Your task to perform on an android device: install app "Speedtest by Ookla" Image 0: 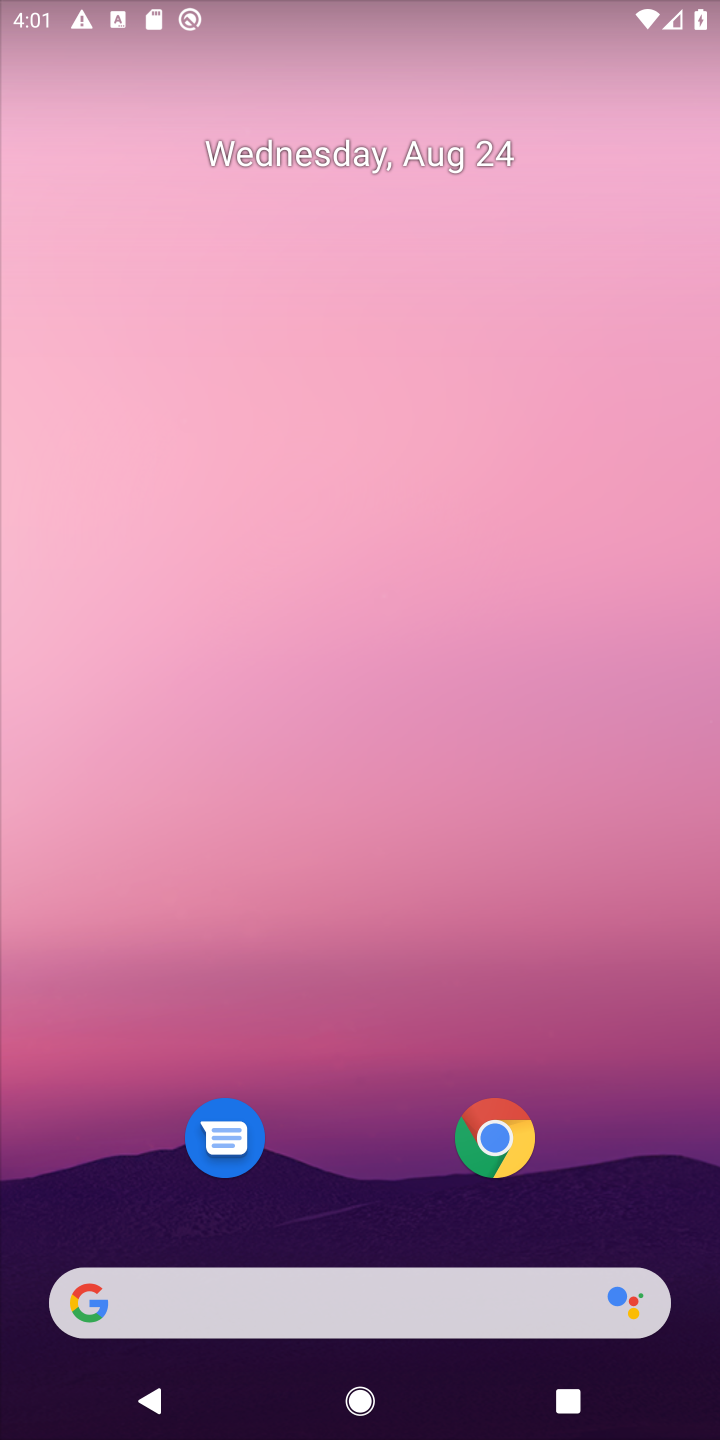
Step 0: drag from (381, 1259) to (375, 169)
Your task to perform on an android device: install app "Speedtest by Ookla" Image 1: 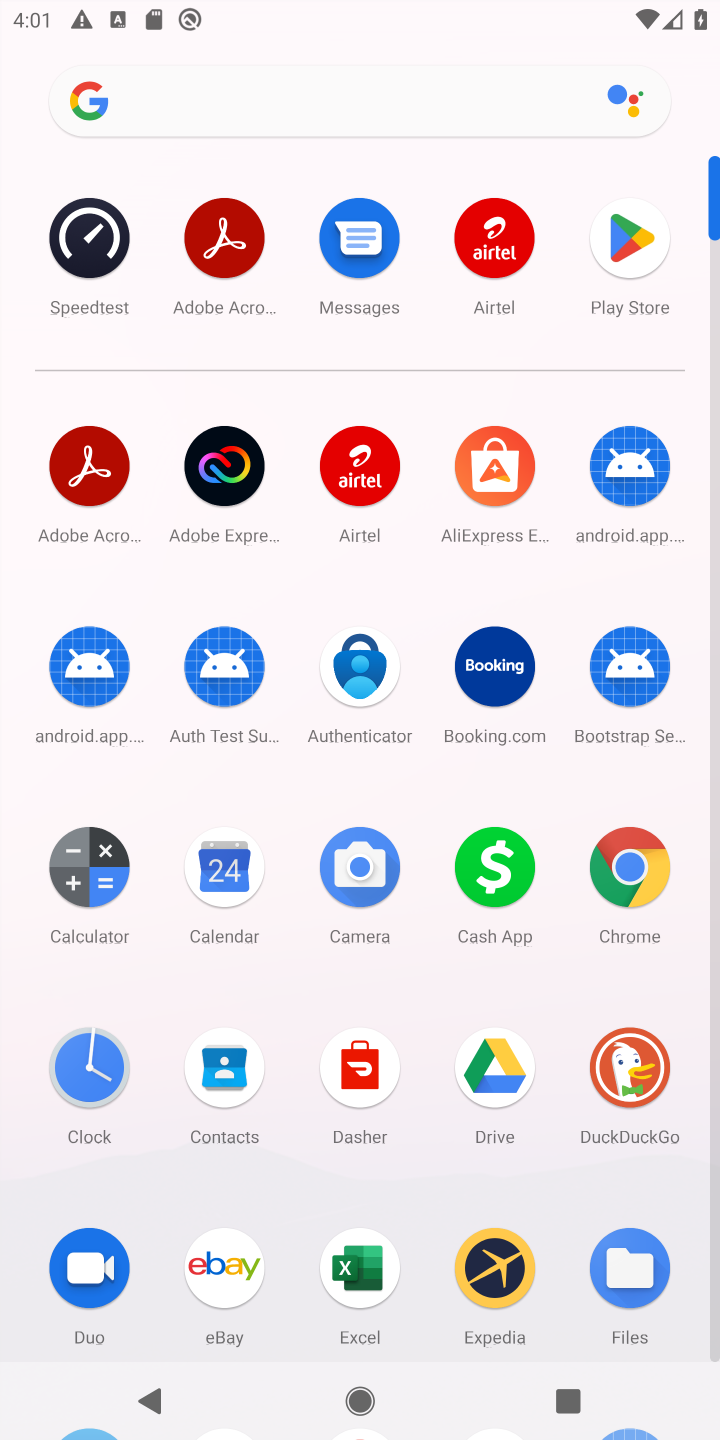
Step 1: click (625, 241)
Your task to perform on an android device: install app "Speedtest by Ookla" Image 2: 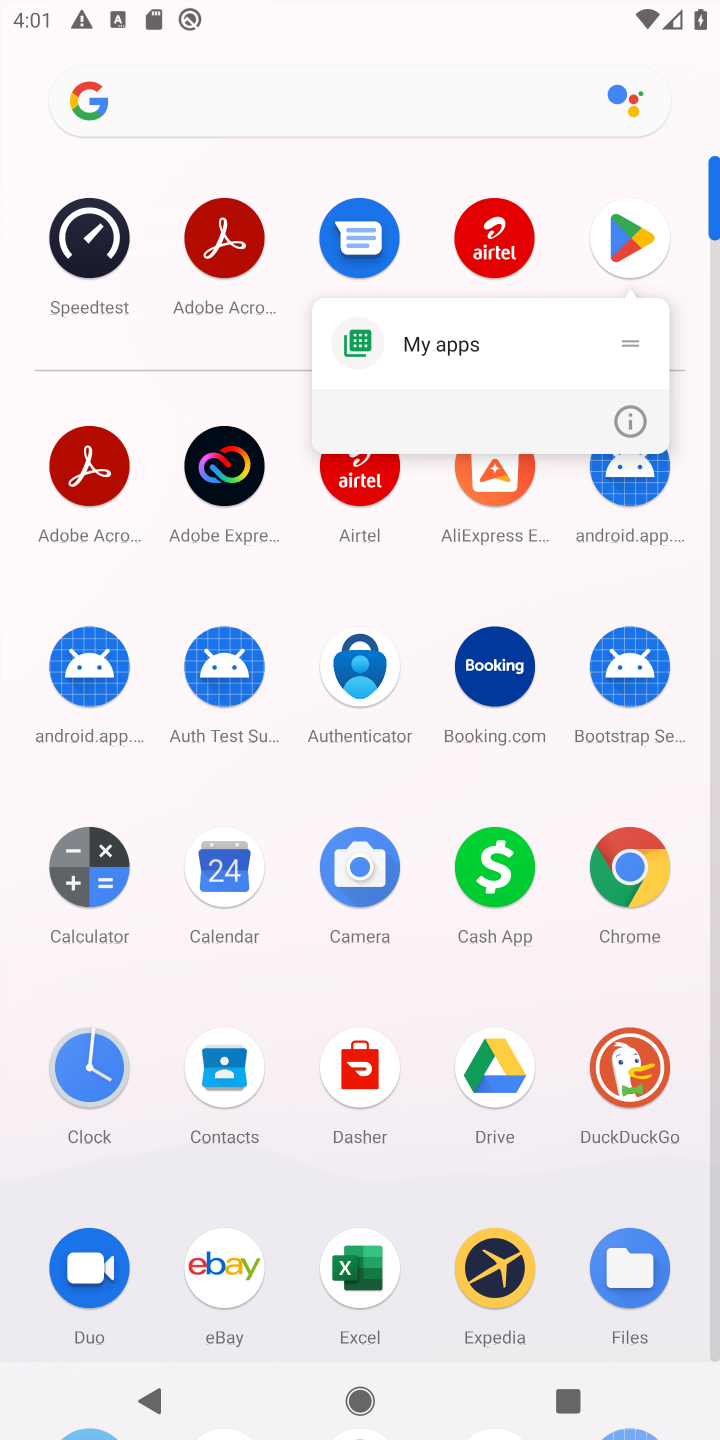
Step 2: click (631, 245)
Your task to perform on an android device: install app "Speedtest by Ookla" Image 3: 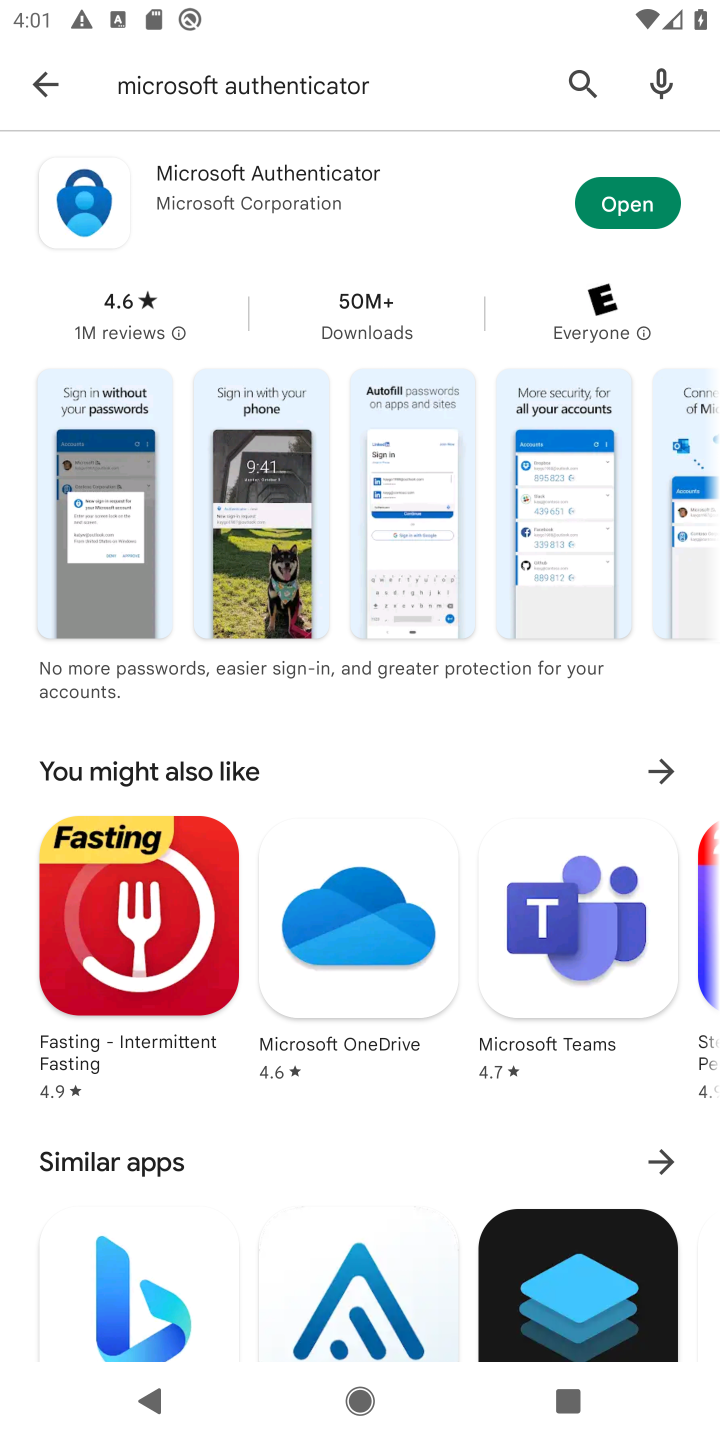
Step 3: click (582, 77)
Your task to perform on an android device: install app "Speedtest by Ookla" Image 4: 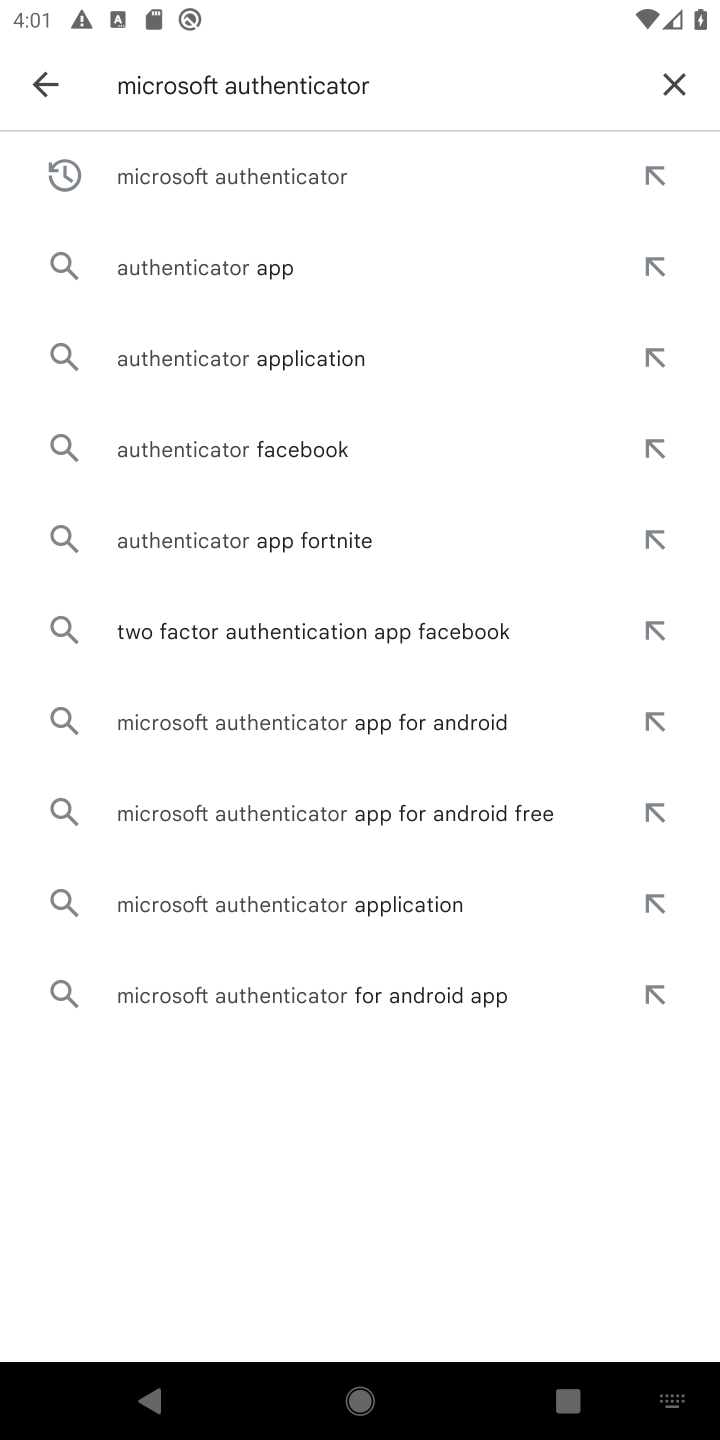
Step 4: click (679, 80)
Your task to perform on an android device: install app "Speedtest by Ookla" Image 5: 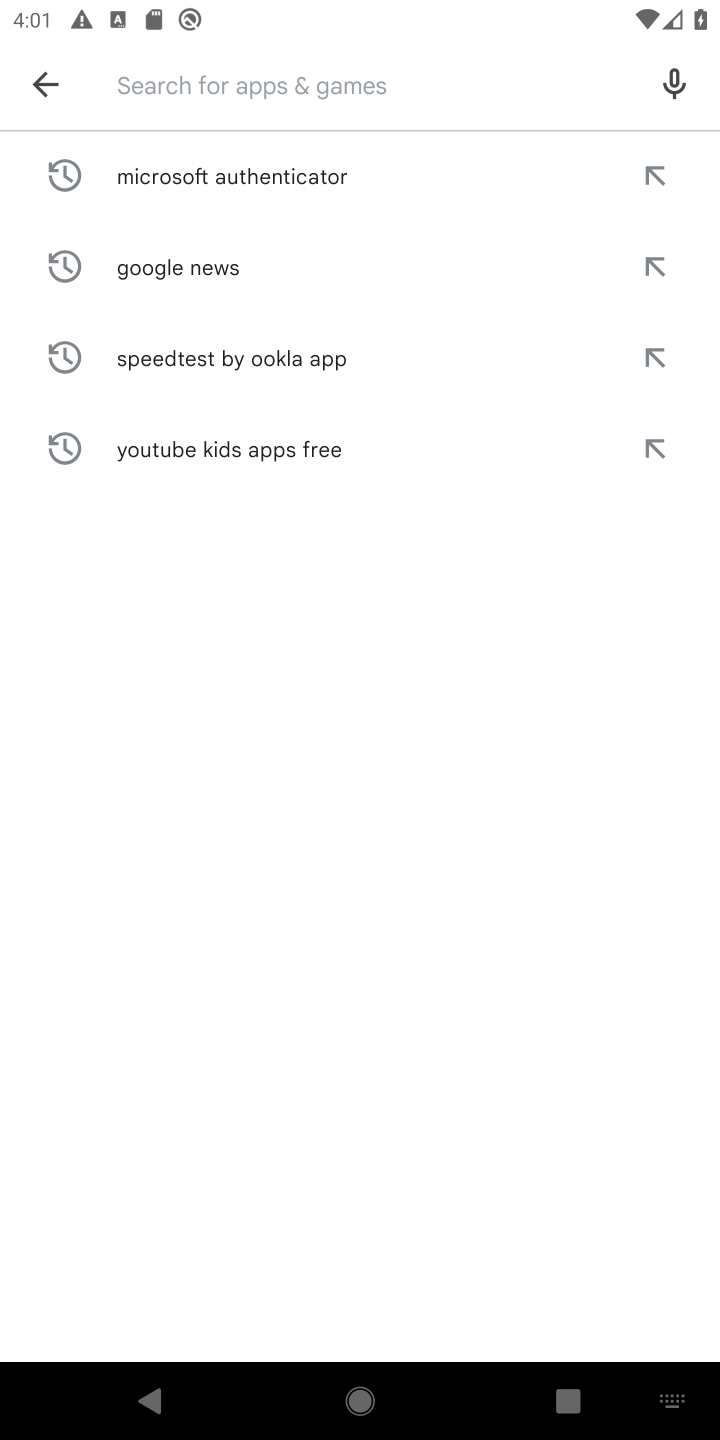
Step 5: type "Speedtest by Ookla"
Your task to perform on an android device: install app "Speedtest by Ookla" Image 6: 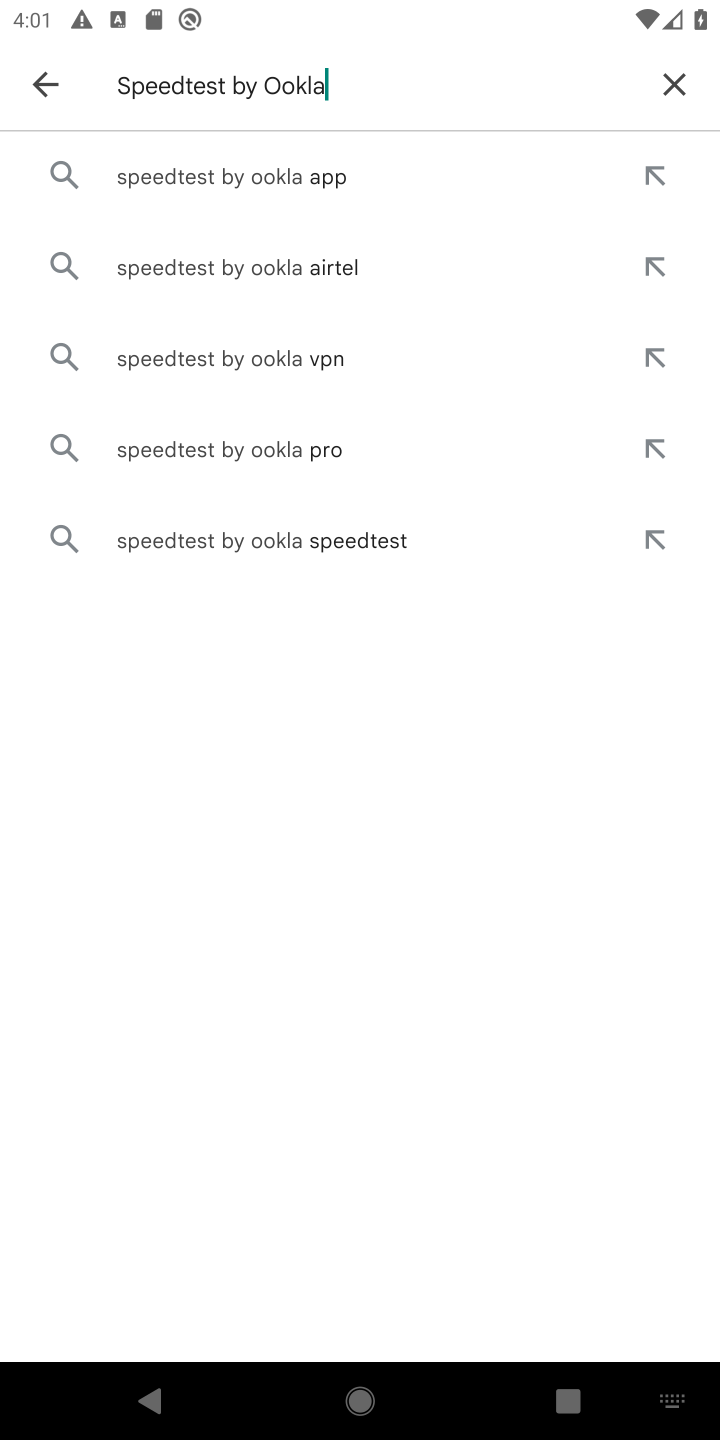
Step 6: click (198, 179)
Your task to perform on an android device: install app "Speedtest by Ookla" Image 7: 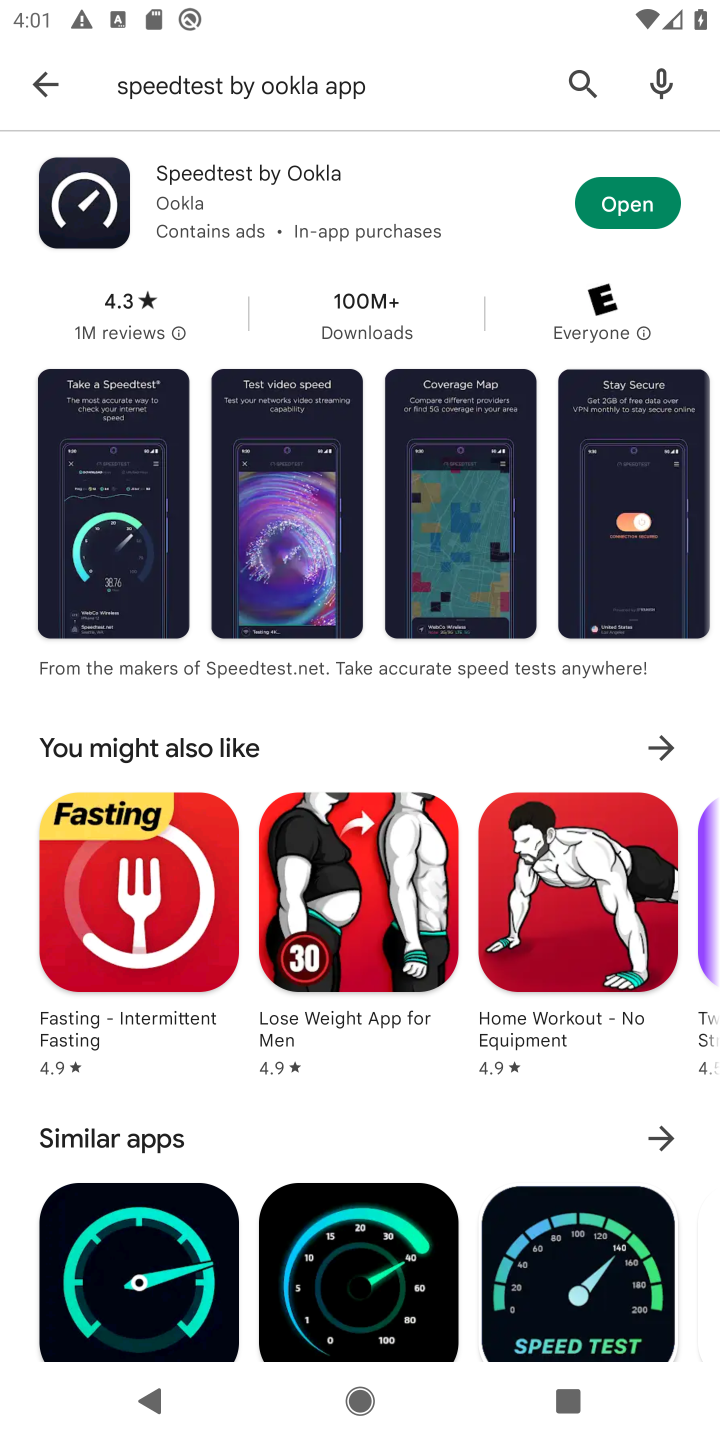
Step 7: task complete